Your task to perform on an android device: toggle airplane mode Image 0: 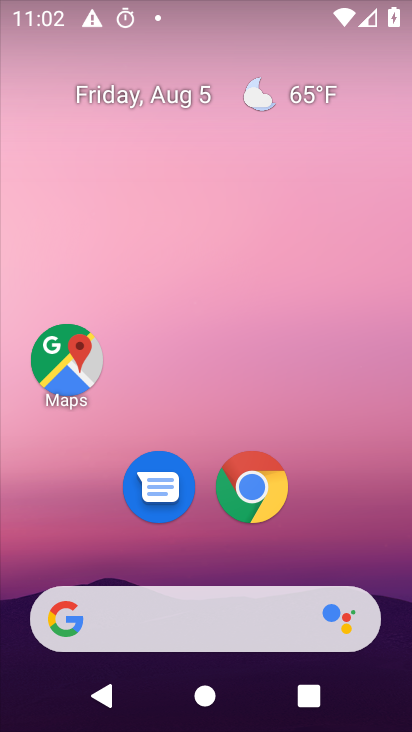
Step 0: drag from (364, 21) to (323, 561)
Your task to perform on an android device: toggle airplane mode Image 1: 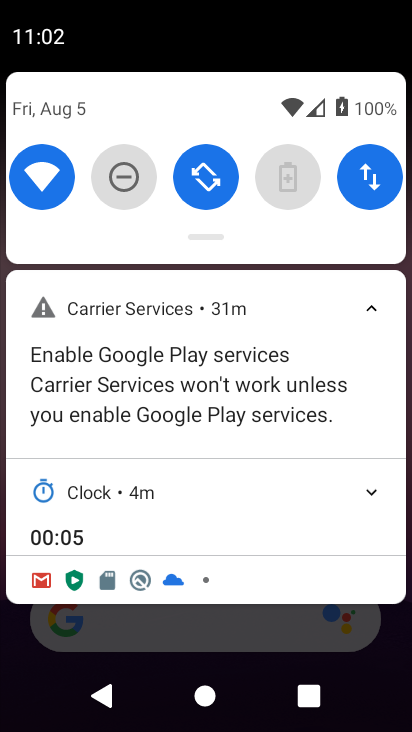
Step 1: drag from (183, 239) to (184, 730)
Your task to perform on an android device: toggle airplane mode Image 2: 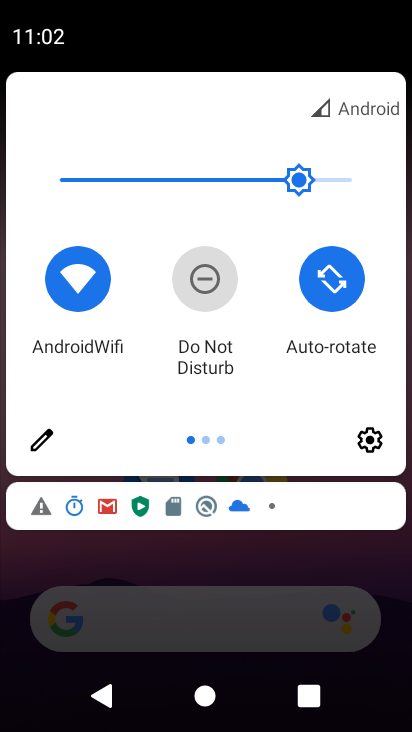
Step 2: drag from (357, 246) to (37, 268)
Your task to perform on an android device: toggle airplane mode Image 3: 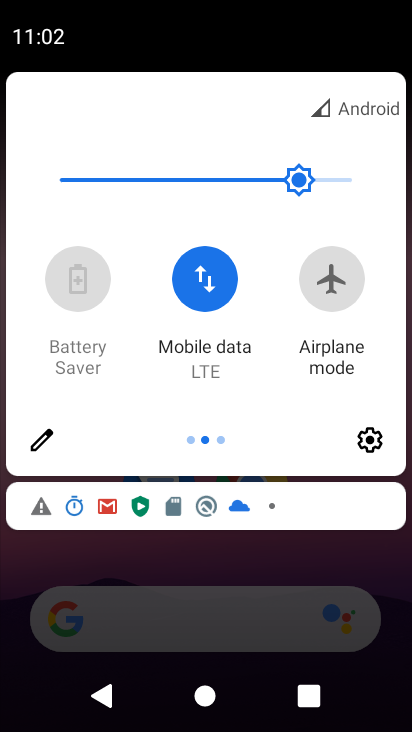
Step 3: click (336, 273)
Your task to perform on an android device: toggle airplane mode Image 4: 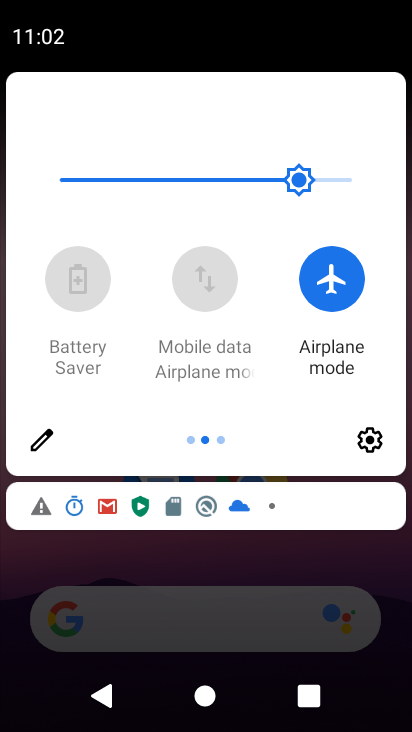
Step 4: task complete